Your task to perform on an android device: Clear the shopping cart on costco.com. Image 0: 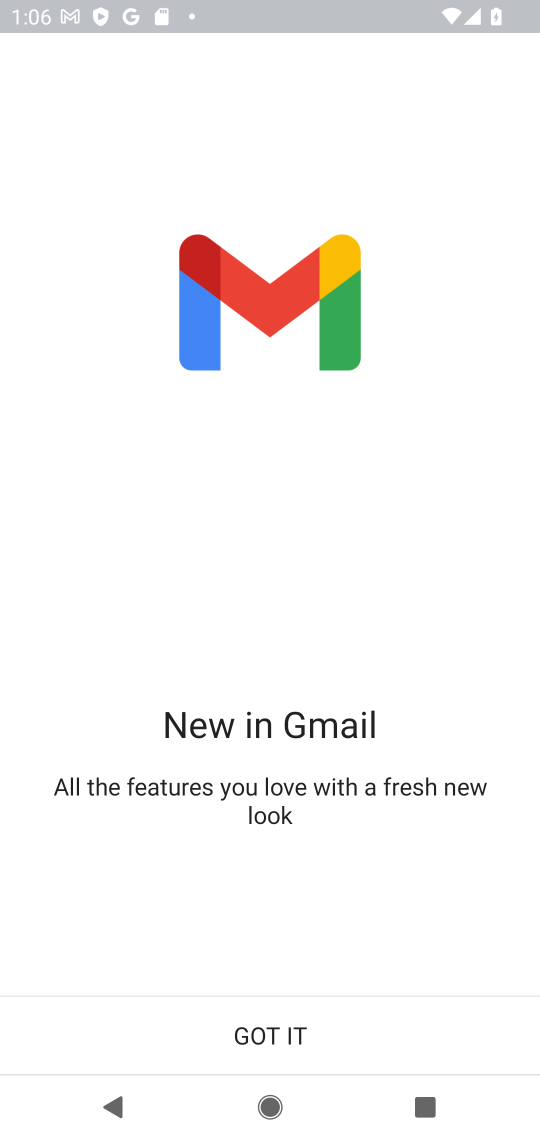
Step 0: press home button
Your task to perform on an android device: Clear the shopping cart on costco.com. Image 1: 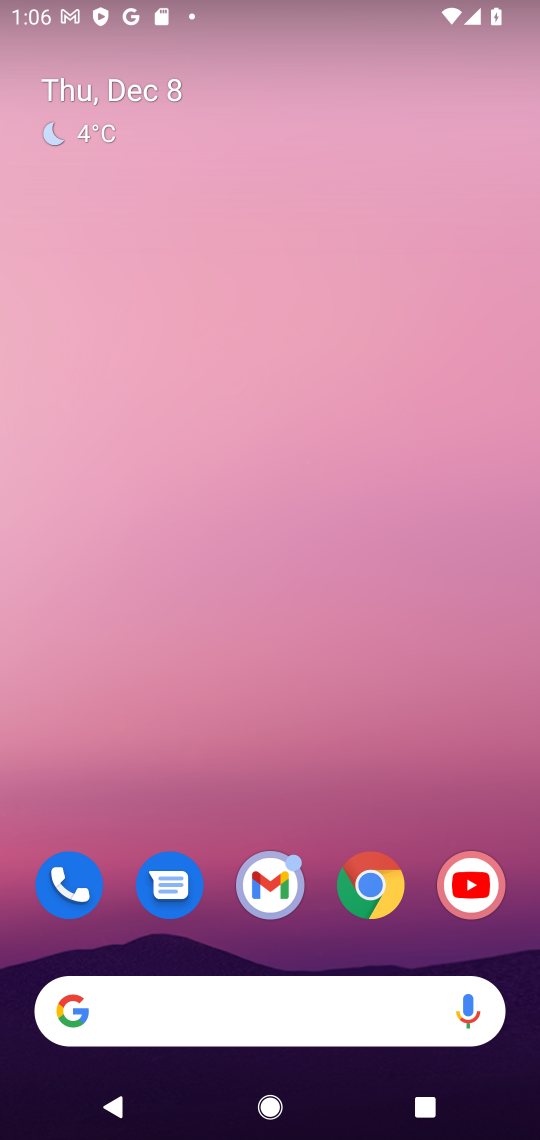
Step 1: click (371, 895)
Your task to perform on an android device: Clear the shopping cart on costco.com. Image 2: 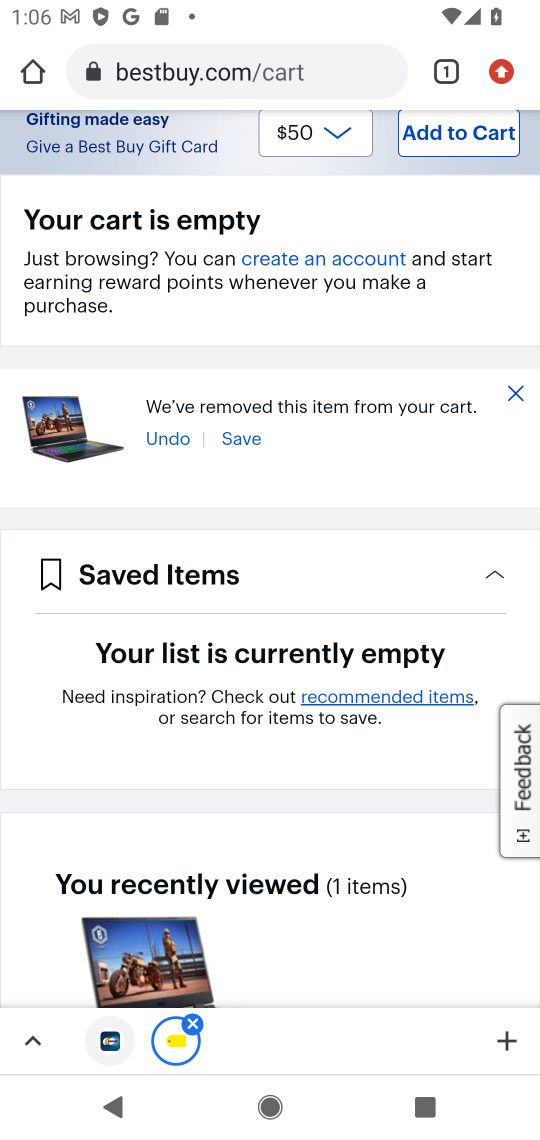
Step 2: click (243, 64)
Your task to perform on an android device: Clear the shopping cart on costco.com. Image 3: 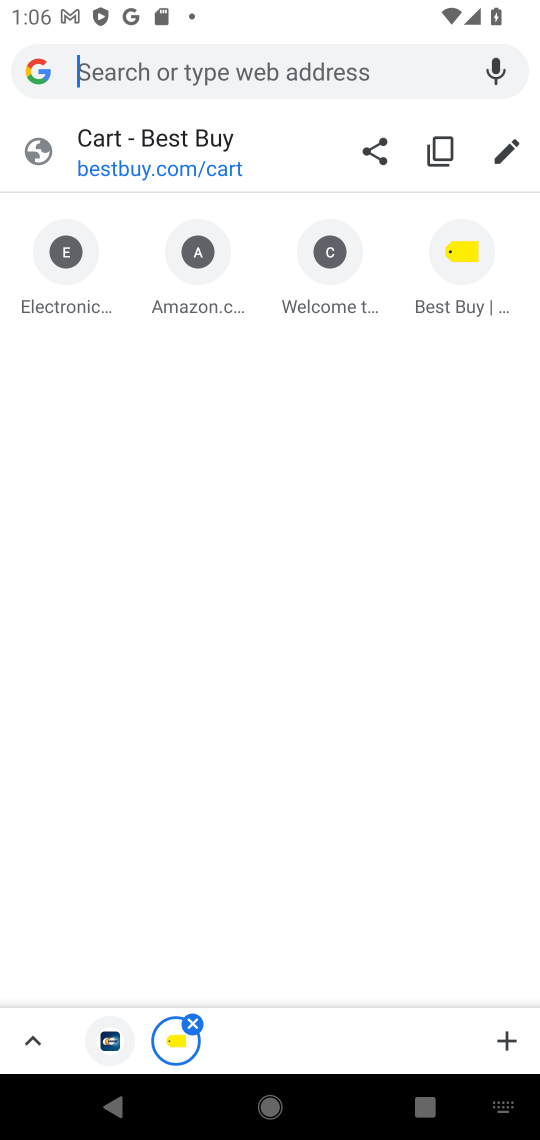
Step 3: type "COSTCO"
Your task to perform on an android device: Clear the shopping cart on costco.com. Image 4: 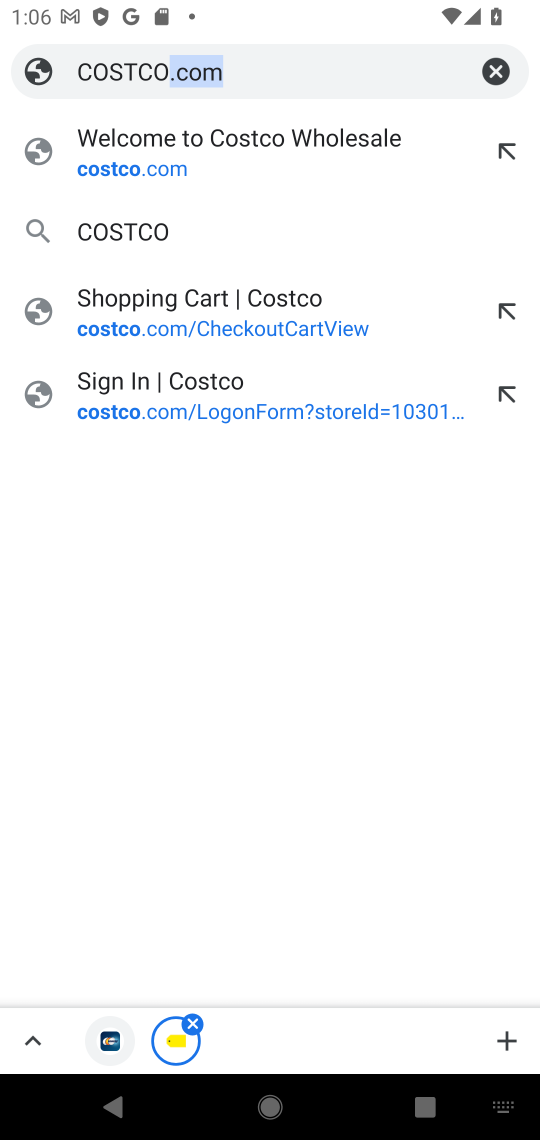
Step 4: click (180, 159)
Your task to perform on an android device: Clear the shopping cart on costco.com. Image 5: 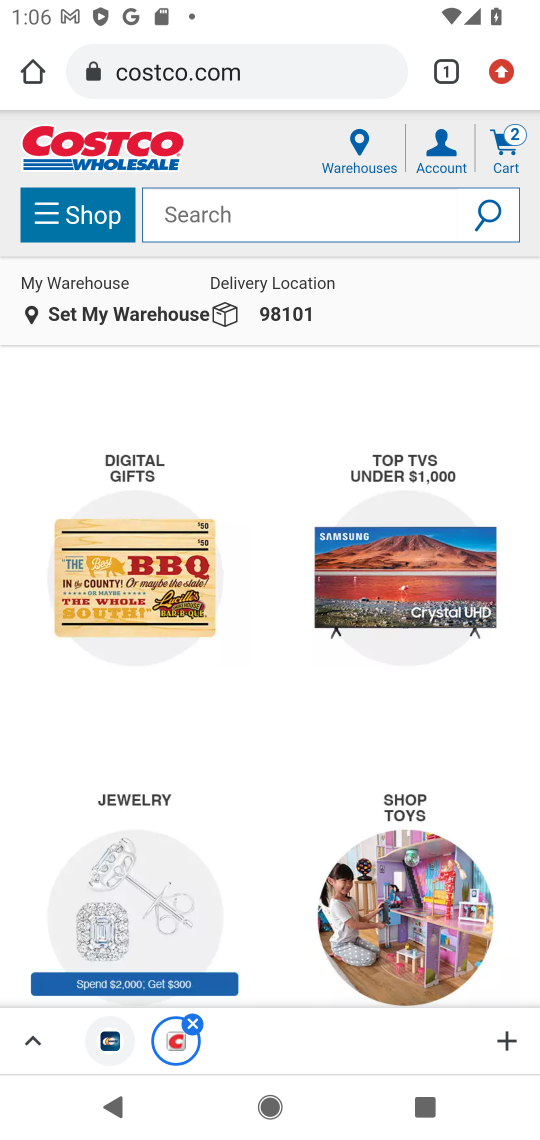
Step 5: click (266, 213)
Your task to perform on an android device: Clear the shopping cart on costco.com. Image 6: 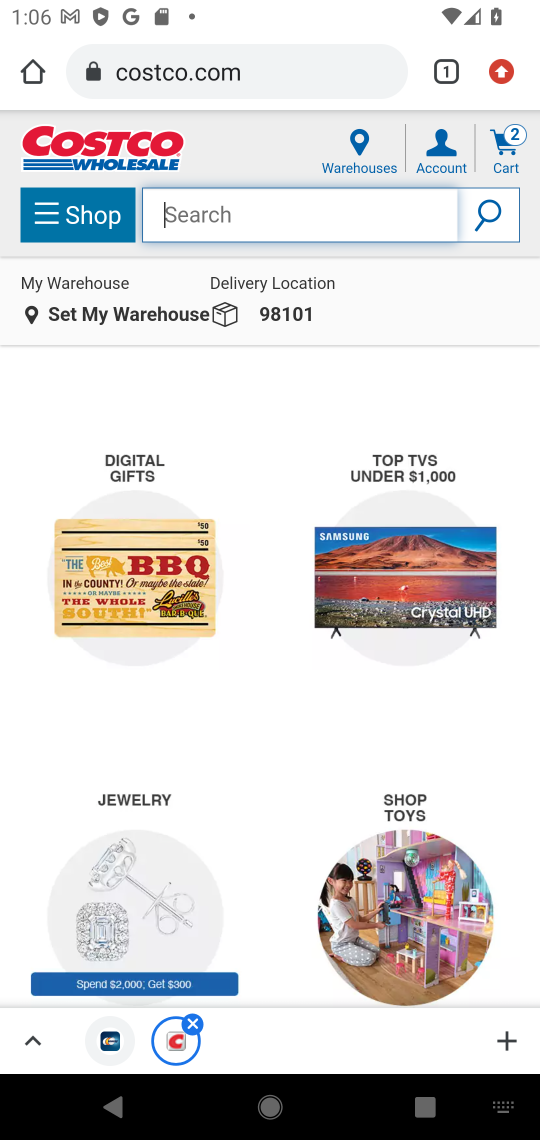
Step 6: click (511, 143)
Your task to perform on an android device: Clear the shopping cart on costco.com. Image 7: 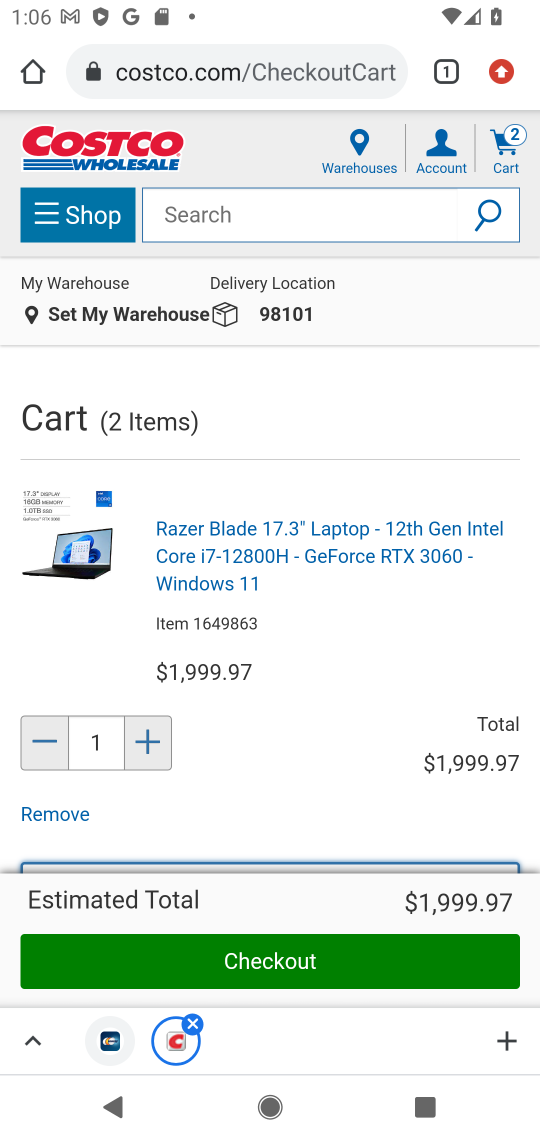
Step 7: click (63, 819)
Your task to perform on an android device: Clear the shopping cart on costco.com. Image 8: 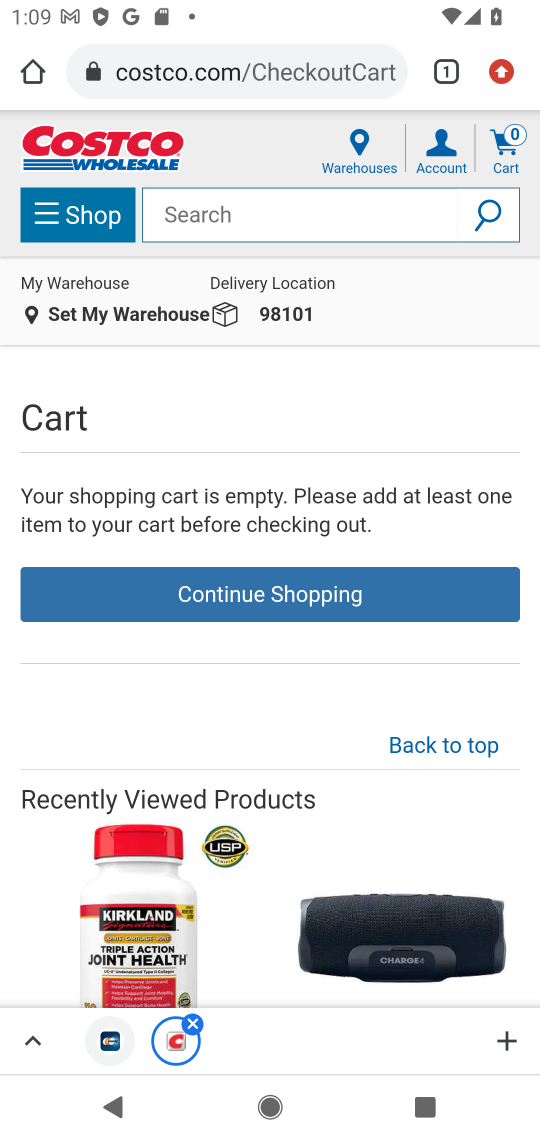
Step 8: task complete